Your task to perform on an android device: empty trash in google photos Image 0: 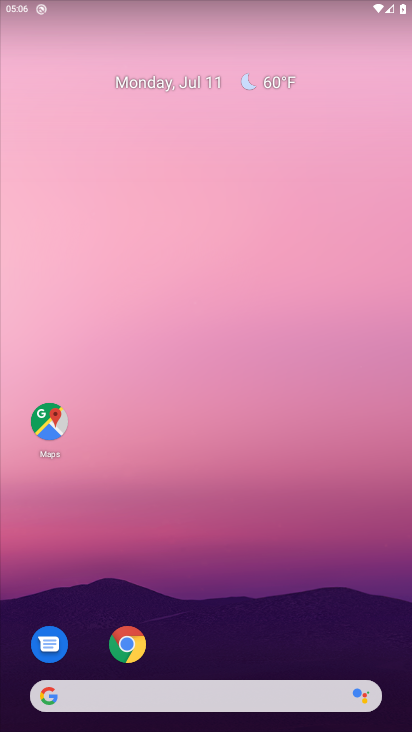
Step 0: drag from (227, 662) to (223, 347)
Your task to perform on an android device: empty trash in google photos Image 1: 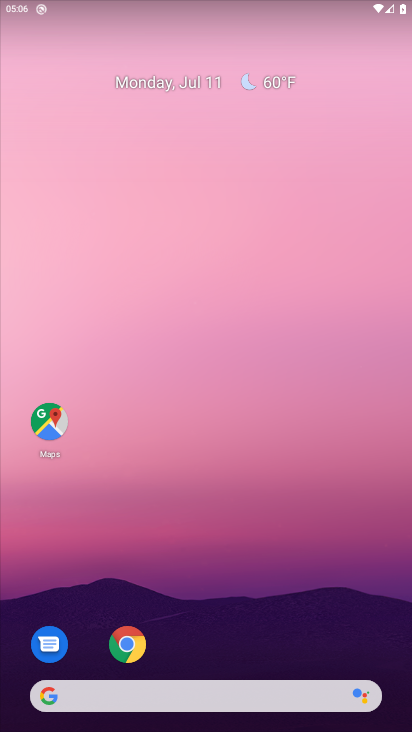
Step 1: drag from (302, 666) to (306, 364)
Your task to perform on an android device: empty trash in google photos Image 2: 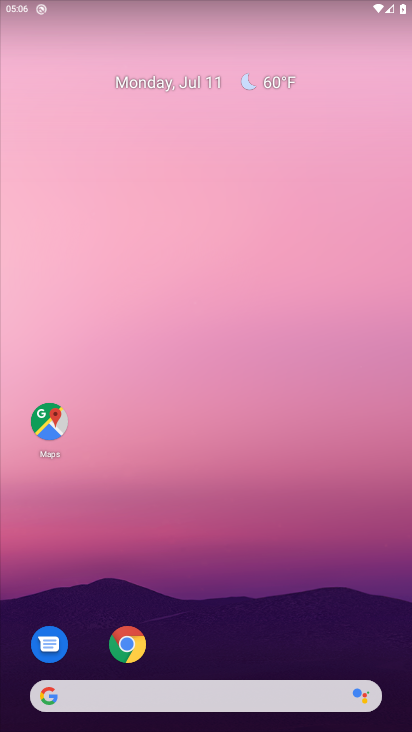
Step 2: drag from (191, 664) to (190, 194)
Your task to perform on an android device: empty trash in google photos Image 3: 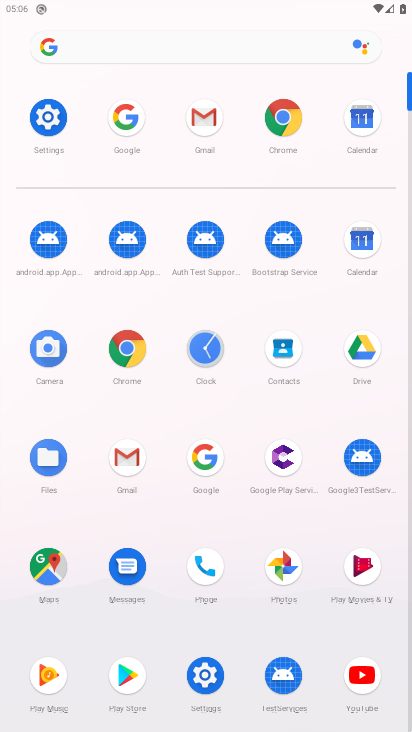
Step 3: click (278, 568)
Your task to perform on an android device: empty trash in google photos Image 4: 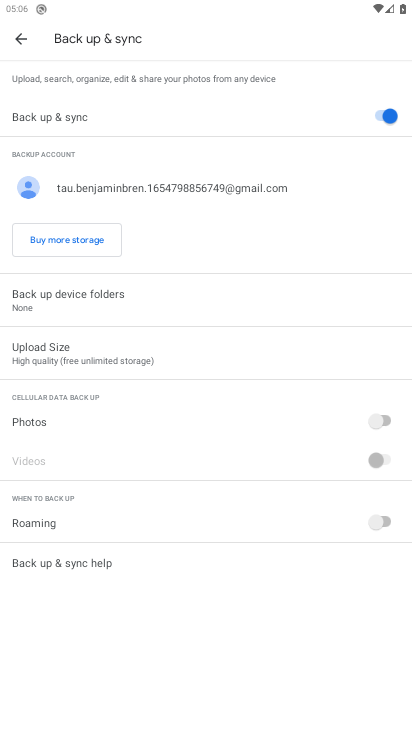
Step 4: click (19, 46)
Your task to perform on an android device: empty trash in google photos Image 5: 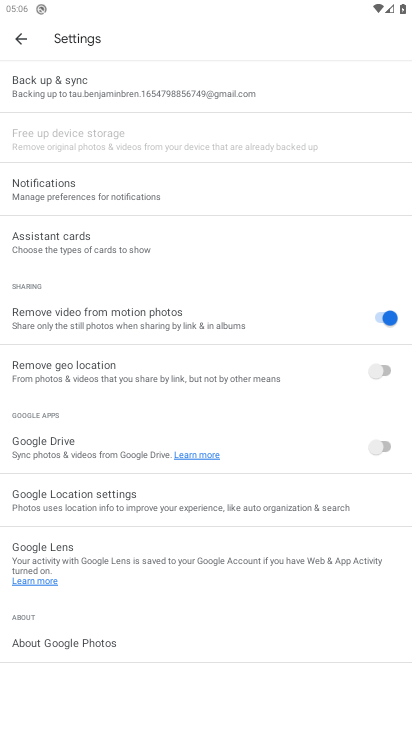
Step 5: click (19, 44)
Your task to perform on an android device: empty trash in google photos Image 6: 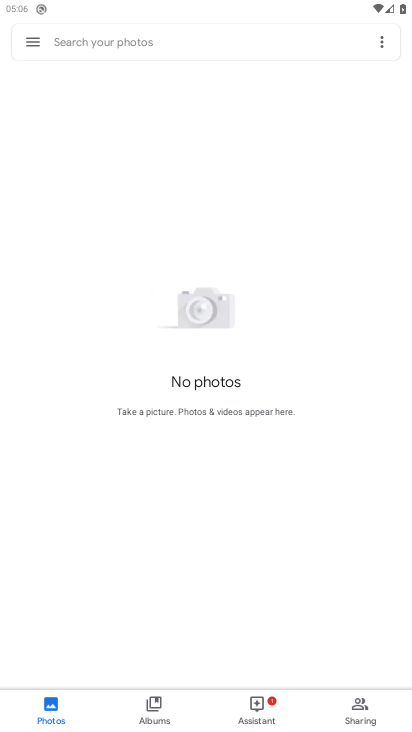
Step 6: click (35, 36)
Your task to perform on an android device: empty trash in google photos Image 7: 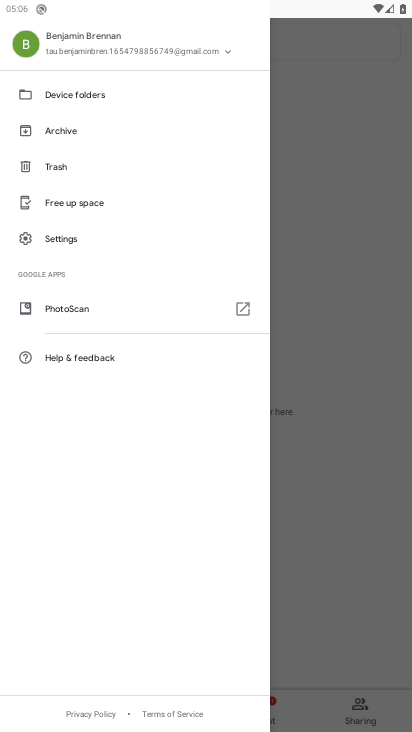
Step 7: click (64, 167)
Your task to perform on an android device: empty trash in google photos Image 8: 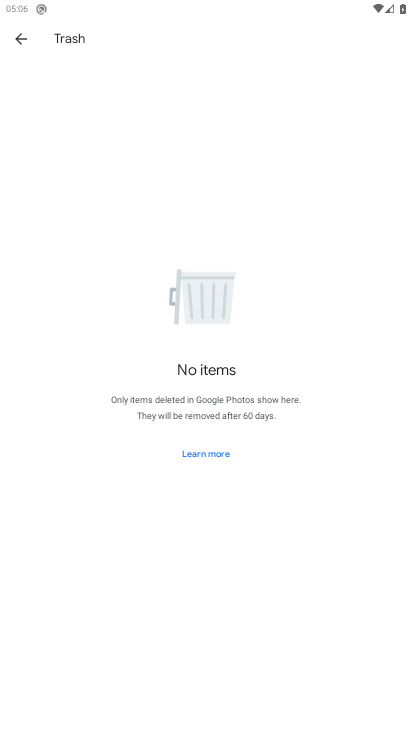
Step 8: task complete